Your task to perform on an android device: Open maps Image 0: 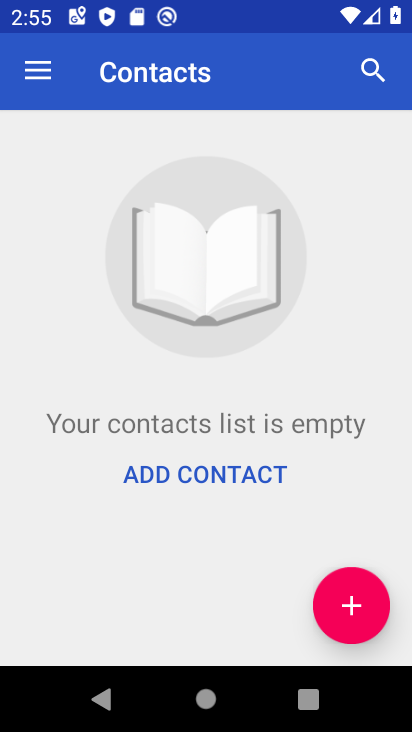
Step 0: press home button
Your task to perform on an android device: Open maps Image 1: 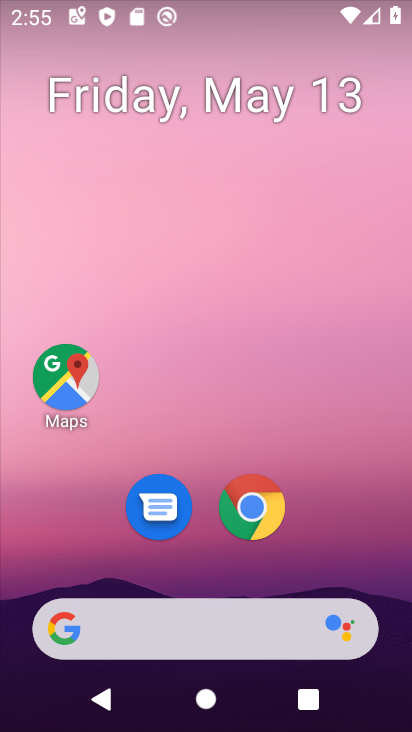
Step 1: click (75, 367)
Your task to perform on an android device: Open maps Image 2: 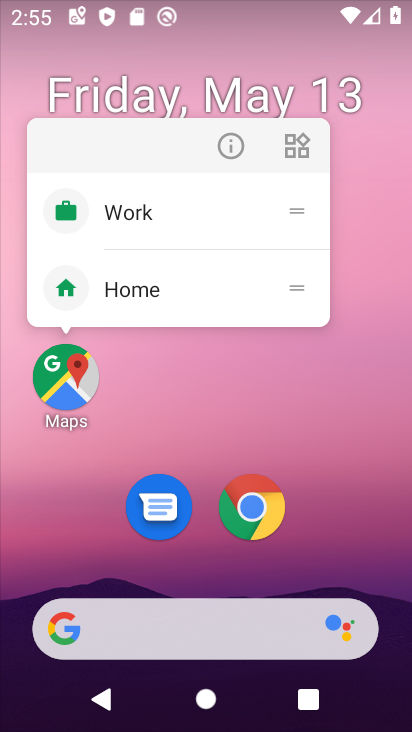
Step 2: click (58, 401)
Your task to perform on an android device: Open maps Image 3: 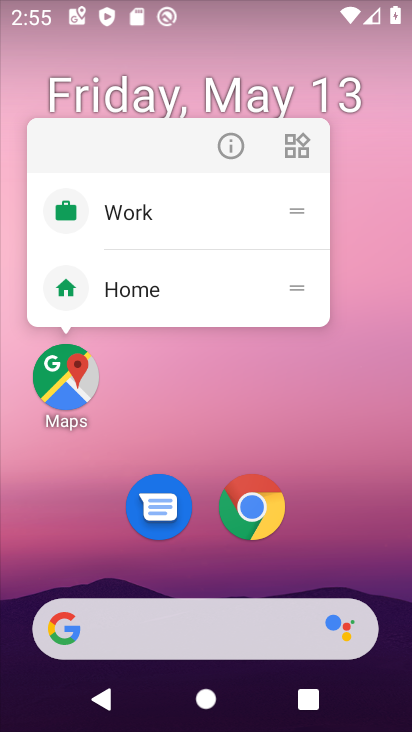
Step 3: click (59, 394)
Your task to perform on an android device: Open maps Image 4: 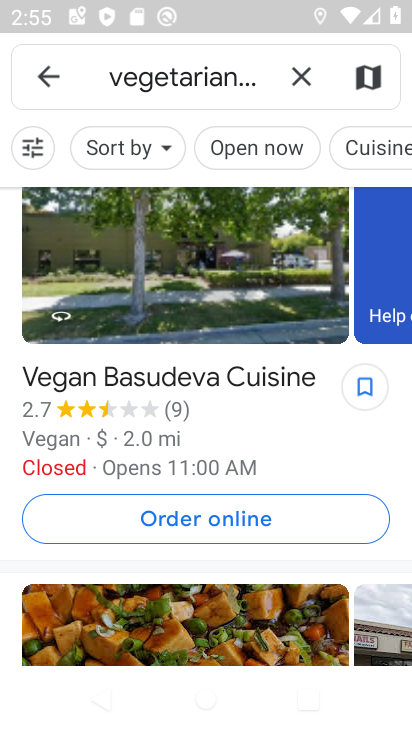
Step 4: task complete